Your task to perform on an android device: change text size in settings app Image 0: 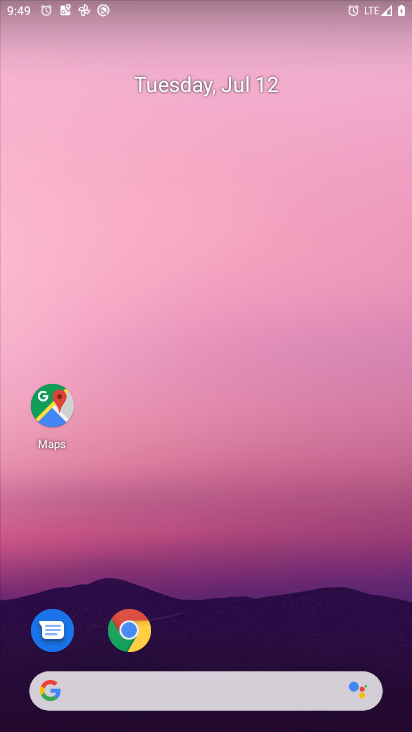
Step 0: press home button
Your task to perform on an android device: change text size in settings app Image 1: 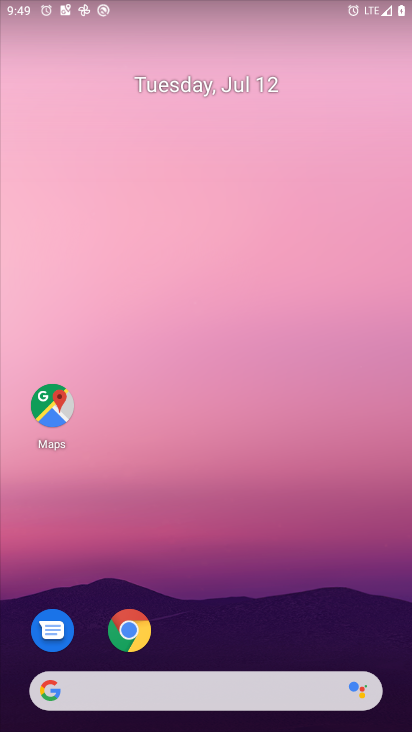
Step 1: drag from (242, 571) to (245, 168)
Your task to perform on an android device: change text size in settings app Image 2: 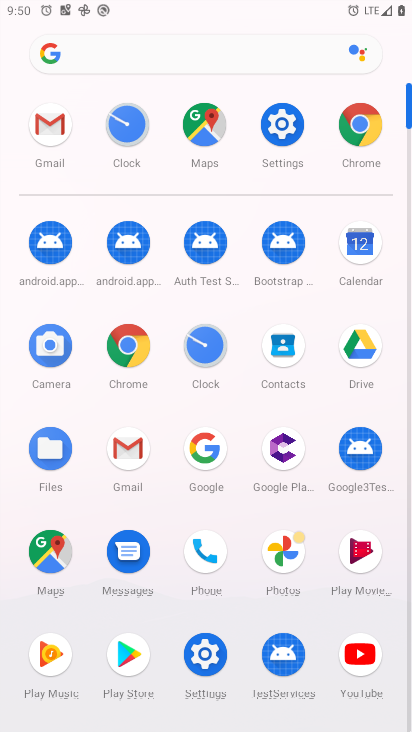
Step 2: click (274, 135)
Your task to perform on an android device: change text size in settings app Image 3: 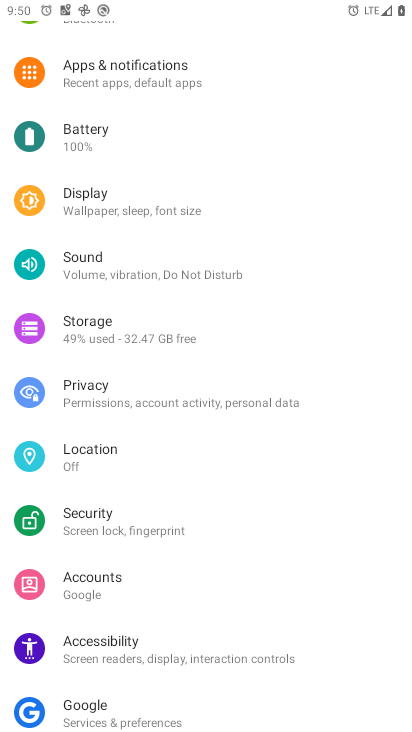
Step 3: drag from (143, 621) to (120, 256)
Your task to perform on an android device: change text size in settings app Image 4: 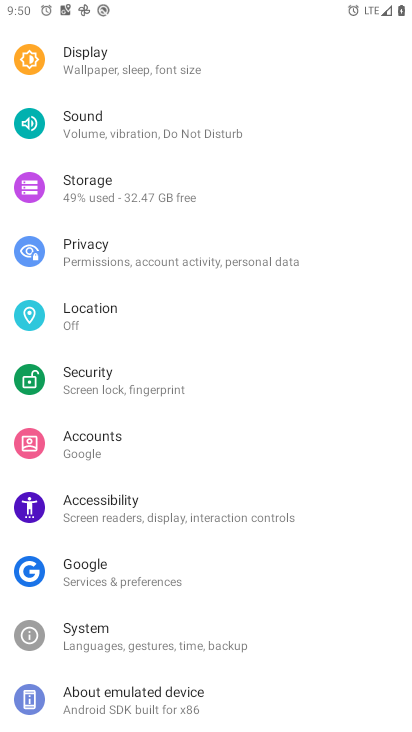
Step 4: click (80, 62)
Your task to perform on an android device: change text size in settings app Image 5: 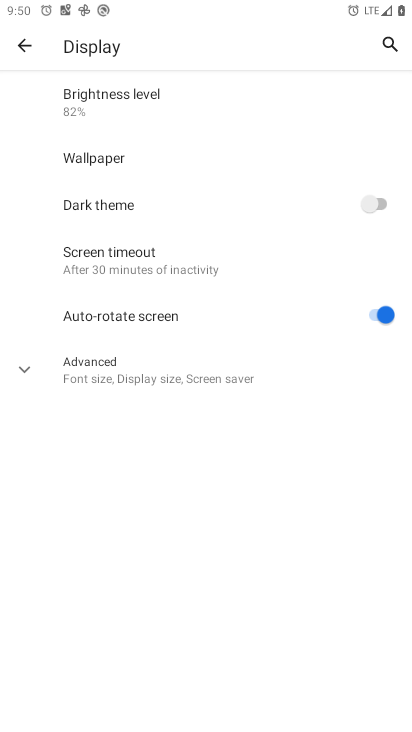
Step 5: click (92, 380)
Your task to perform on an android device: change text size in settings app Image 6: 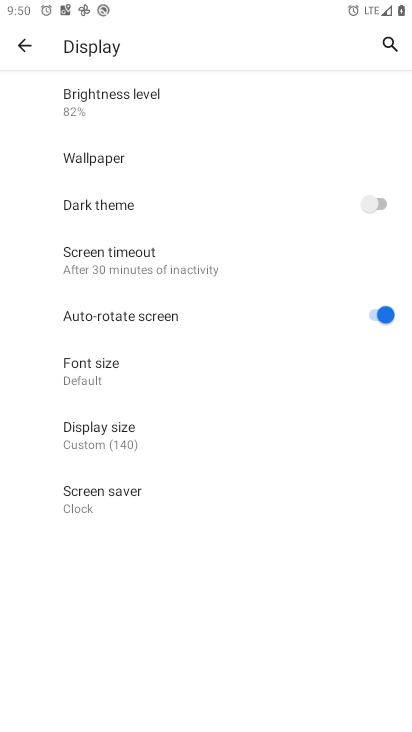
Step 6: click (108, 370)
Your task to perform on an android device: change text size in settings app Image 7: 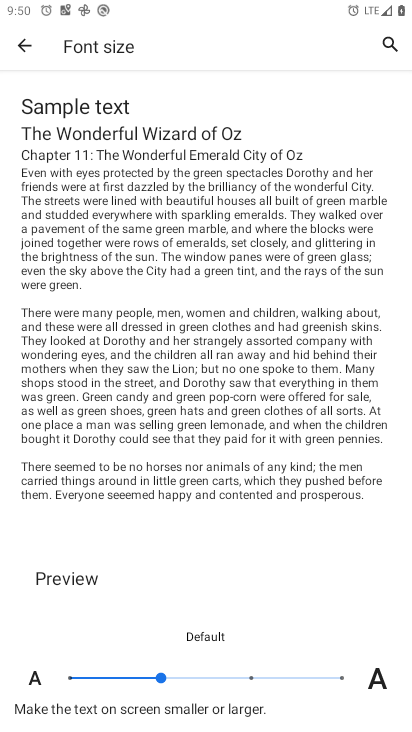
Step 7: click (257, 684)
Your task to perform on an android device: change text size in settings app Image 8: 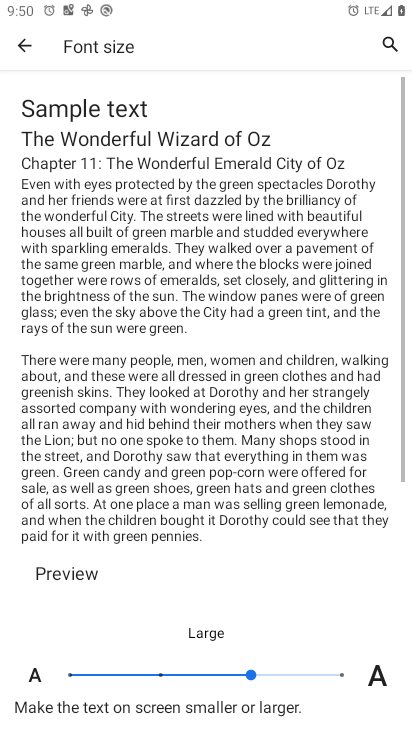
Step 8: click (343, 683)
Your task to perform on an android device: change text size in settings app Image 9: 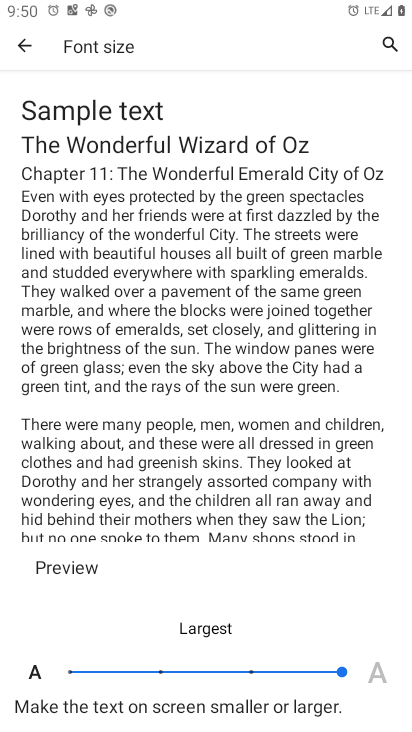
Step 9: task complete